Your task to perform on an android device: check google app version Image 0: 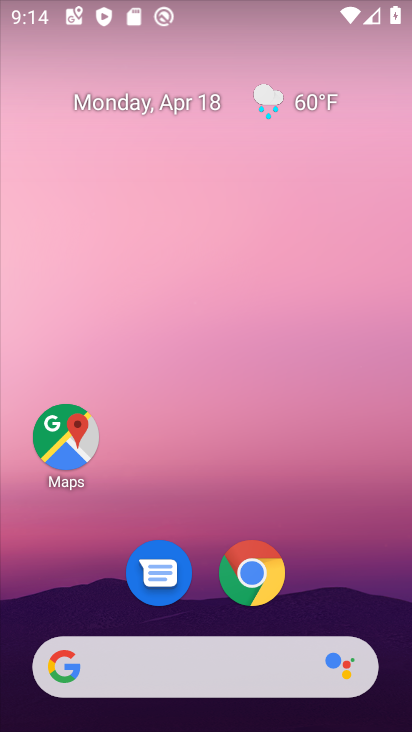
Step 0: drag from (226, 726) to (219, 150)
Your task to perform on an android device: check google app version Image 1: 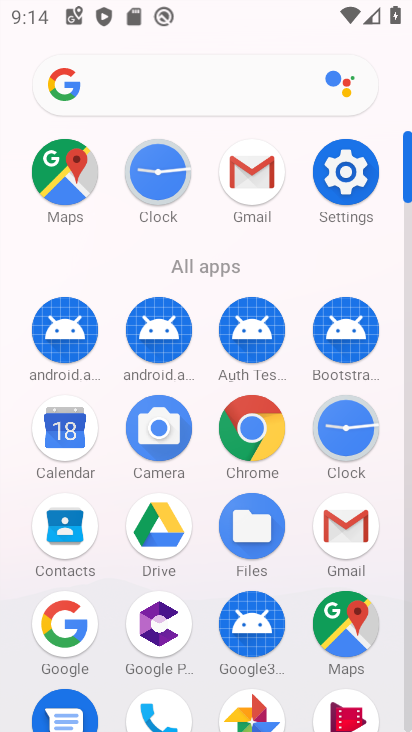
Step 1: click (67, 619)
Your task to perform on an android device: check google app version Image 2: 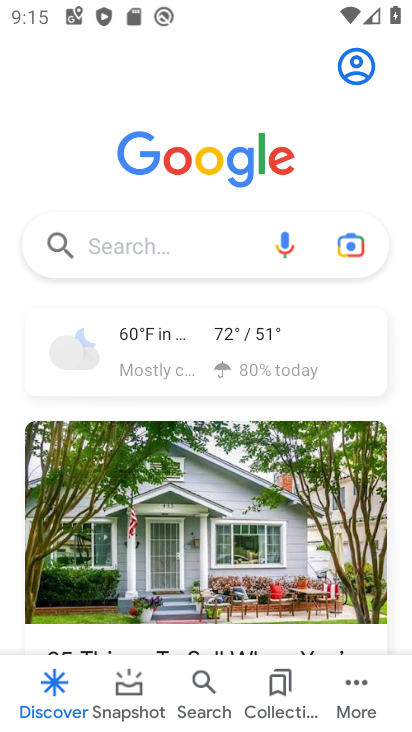
Step 2: click (352, 680)
Your task to perform on an android device: check google app version Image 3: 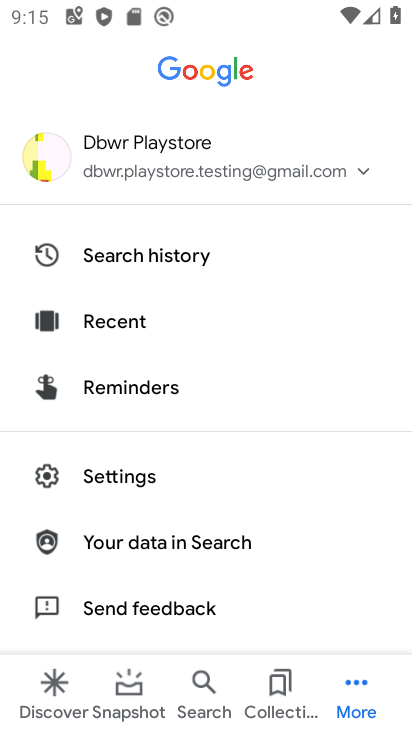
Step 3: click (109, 474)
Your task to perform on an android device: check google app version Image 4: 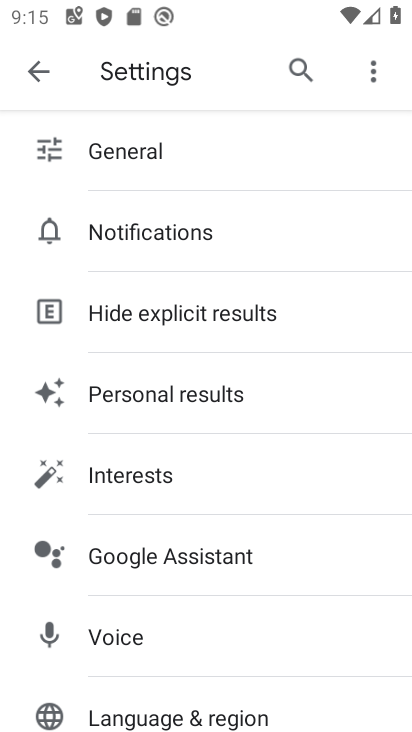
Step 4: drag from (169, 665) to (185, 194)
Your task to perform on an android device: check google app version Image 5: 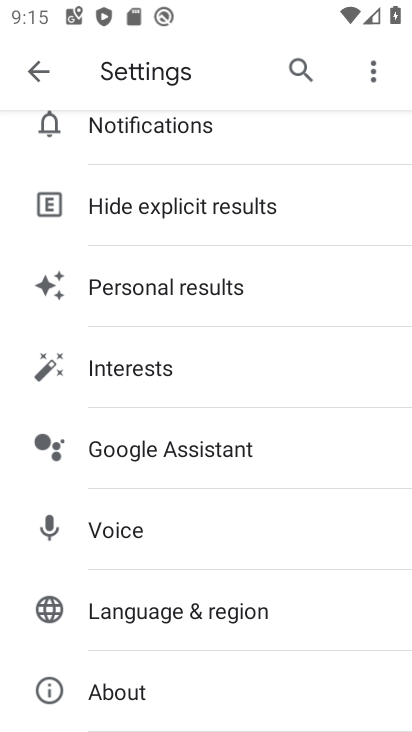
Step 5: click (129, 689)
Your task to perform on an android device: check google app version Image 6: 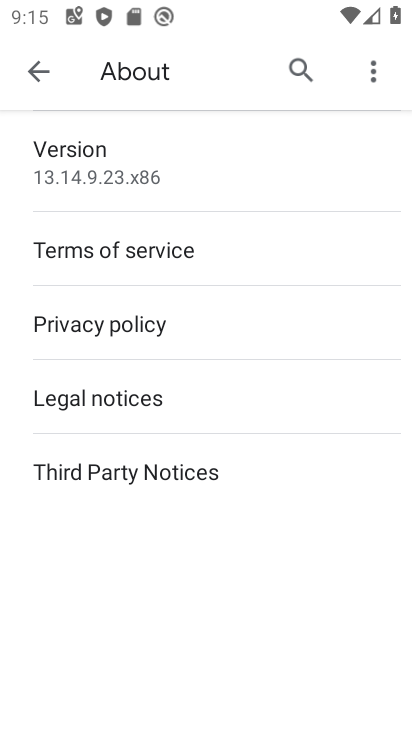
Step 6: task complete